Your task to perform on an android device: Open privacy settings Image 0: 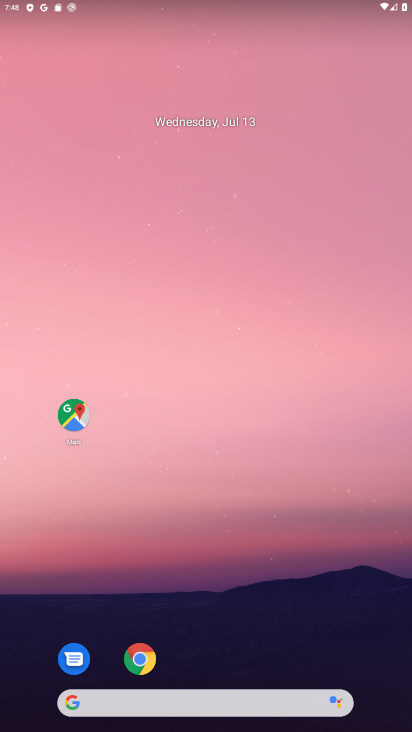
Step 0: click (273, 656)
Your task to perform on an android device: Open privacy settings Image 1: 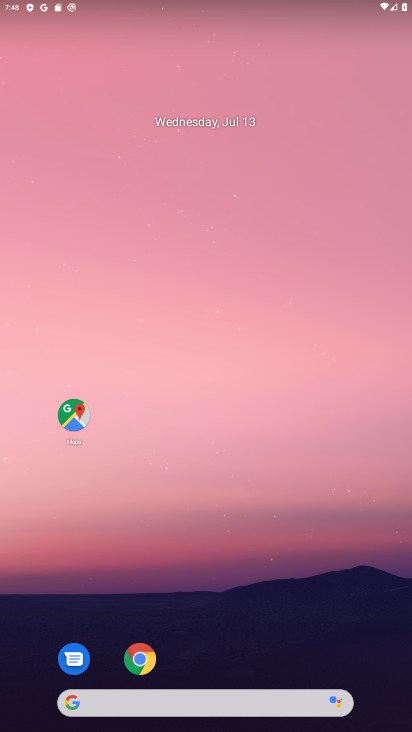
Step 1: drag from (273, 656) to (190, 251)
Your task to perform on an android device: Open privacy settings Image 2: 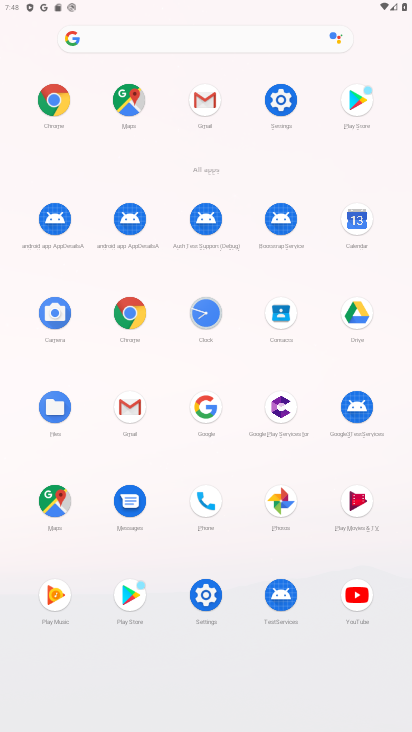
Step 2: click (269, 103)
Your task to perform on an android device: Open privacy settings Image 3: 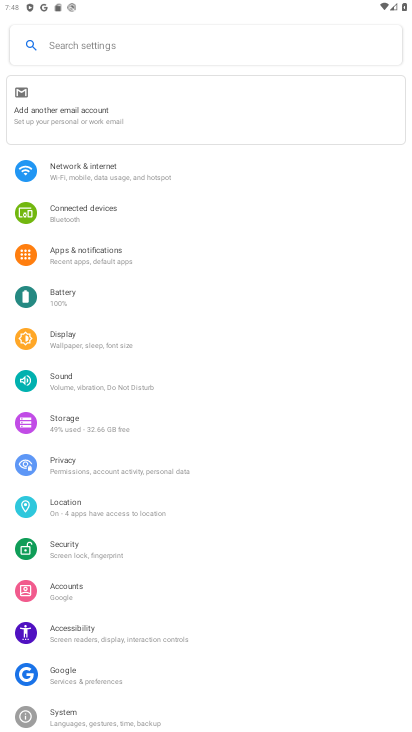
Step 3: click (132, 472)
Your task to perform on an android device: Open privacy settings Image 4: 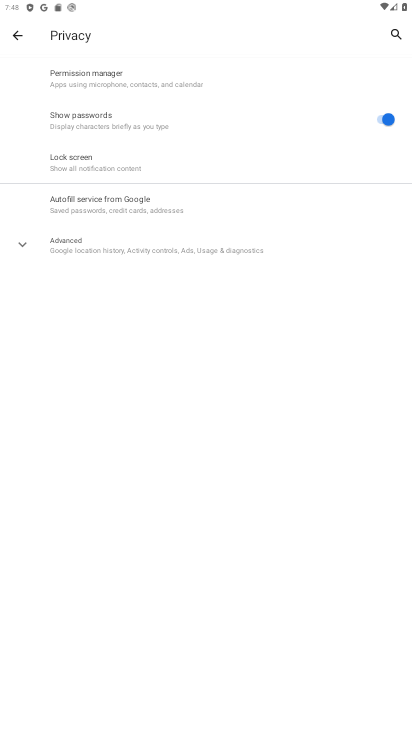
Step 4: task complete